Your task to perform on an android device: Go to ESPN.com Image 0: 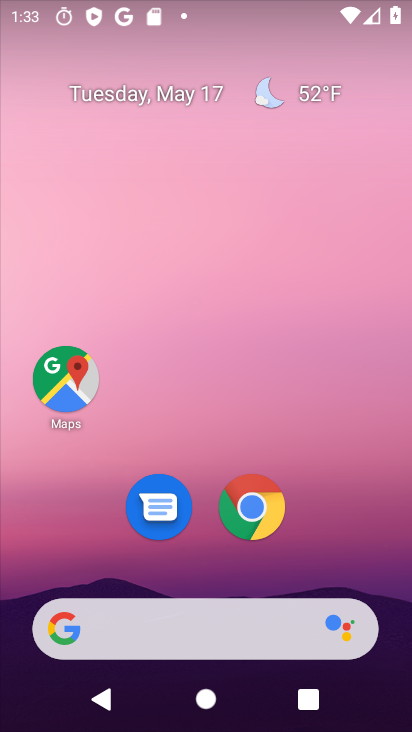
Step 0: drag from (198, 546) to (226, 135)
Your task to perform on an android device: Go to ESPN.com Image 1: 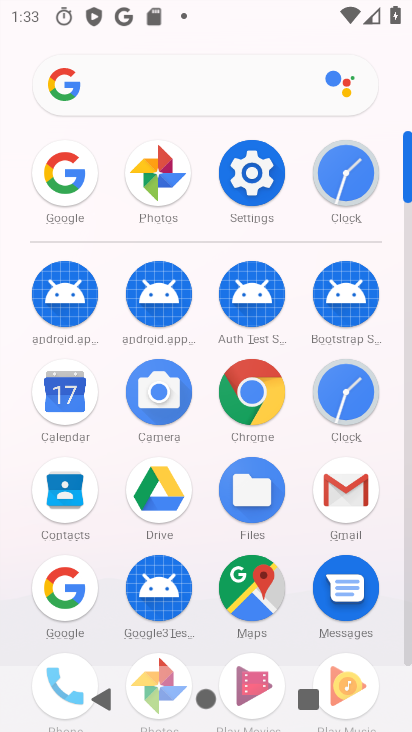
Step 1: click (65, 586)
Your task to perform on an android device: Go to ESPN.com Image 2: 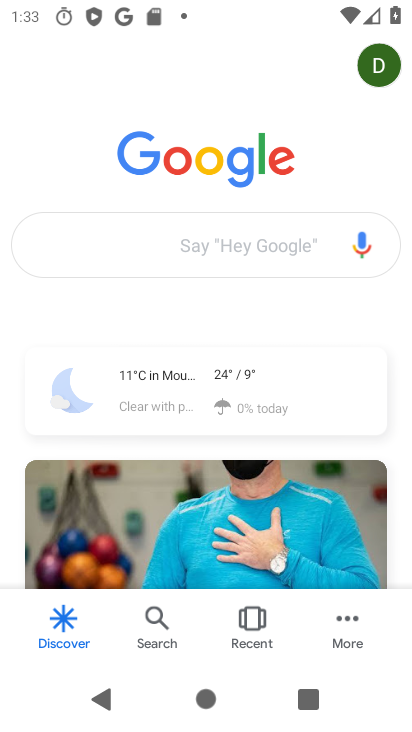
Step 2: click (152, 241)
Your task to perform on an android device: Go to ESPN.com Image 3: 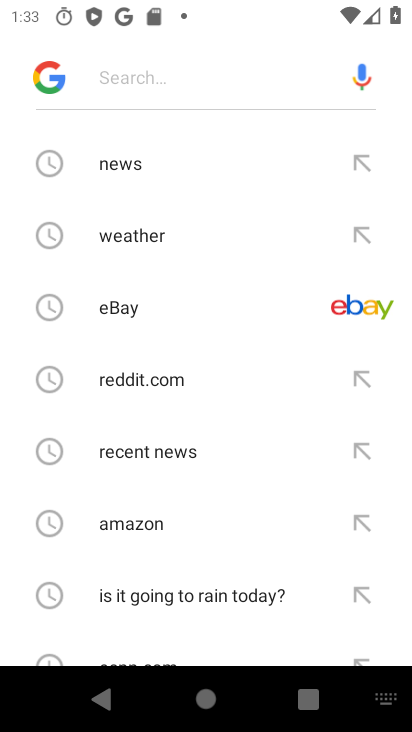
Step 3: type "espn.com"
Your task to perform on an android device: Go to ESPN.com Image 4: 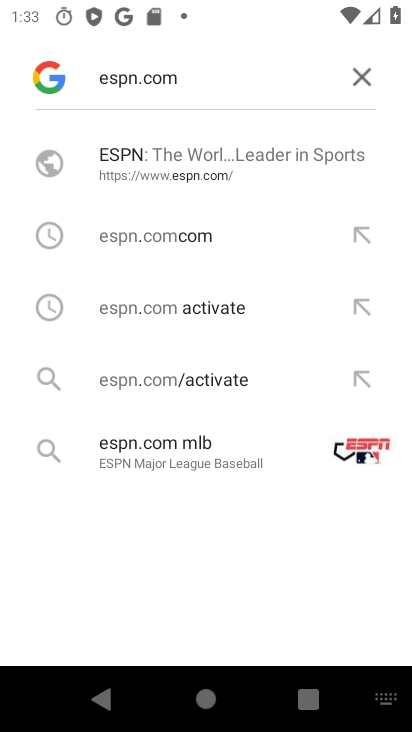
Step 4: click (157, 163)
Your task to perform on an android device: Go to ESPN.com Image 5: 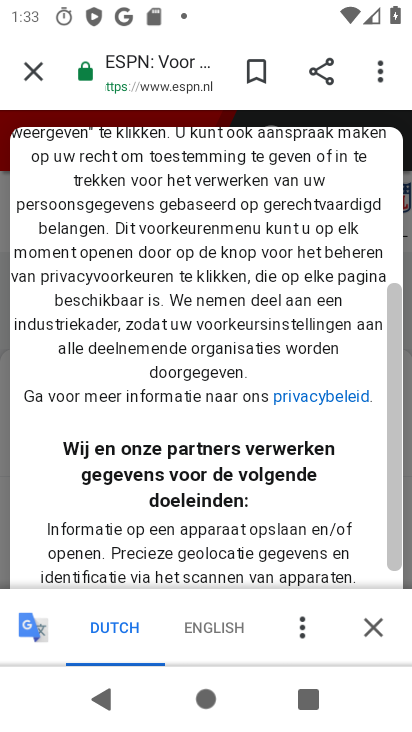
Step 5: task complete